Your task to perform on an android device: turn off improve location accuracy Image 0: 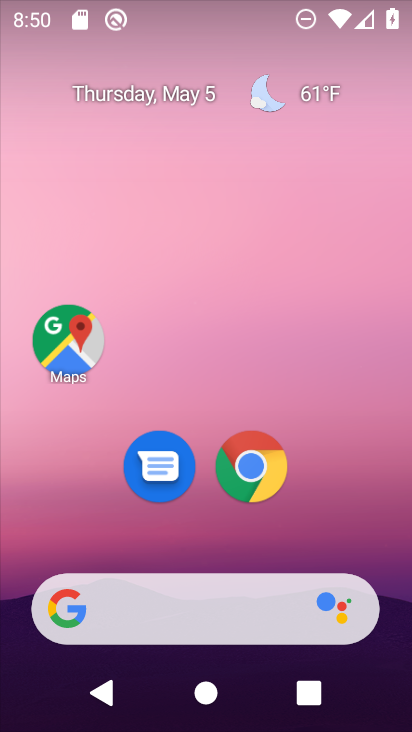
Step 0: drag from (156, 588) to (134, 299)
Your task to perform on an android device: turn off improve location accuracy Image 1: 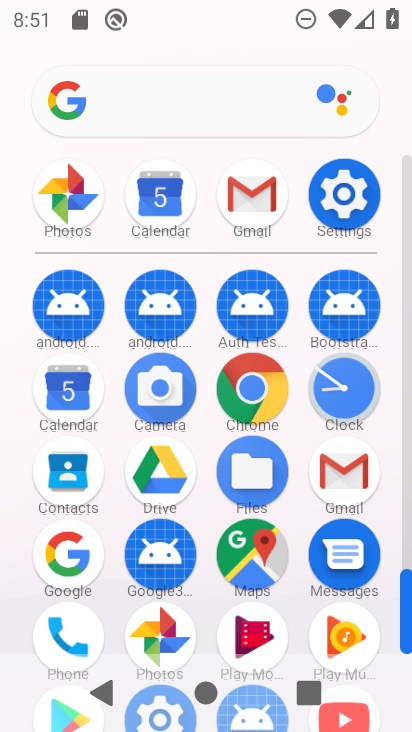
Step 1: click (335, 192)
Your task to perform on an android device: turn off improve location accuracy Image 2: 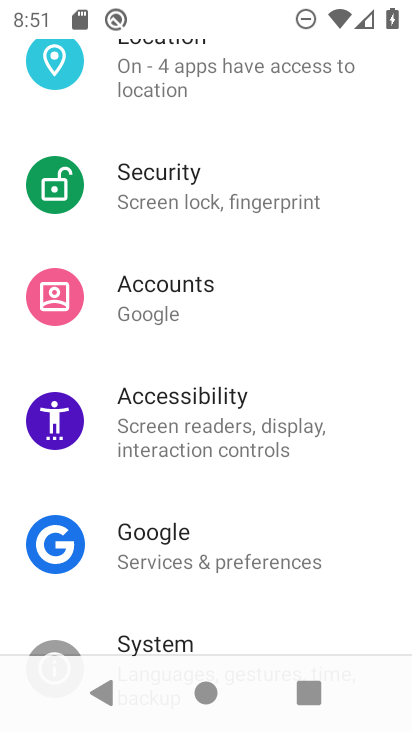
Step 2: click (152, 88)
Your task to perform on an android device: turn off improve location accuracy Image 3: 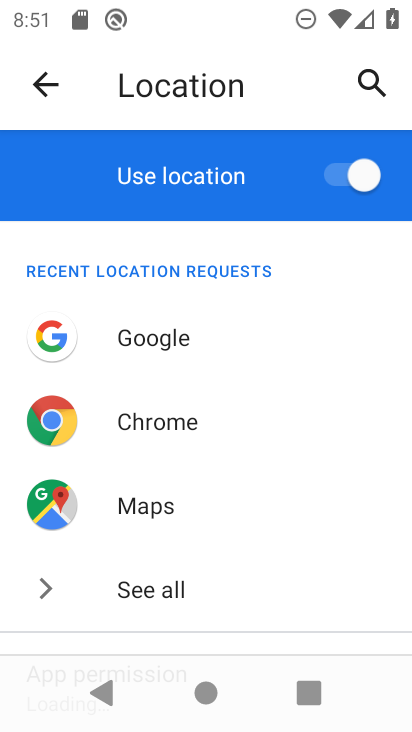
Step 3: drag from (164, 593) to (130, 6)
Your task to perform on an android device: turn off improve location accuracy Image 4: 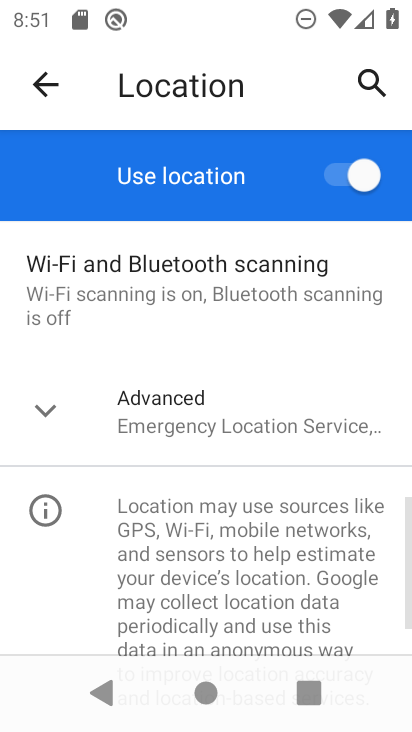
Step 4: click (149, 425)
Your task to perform on an android device: turn off improve location accuracy Image 5: 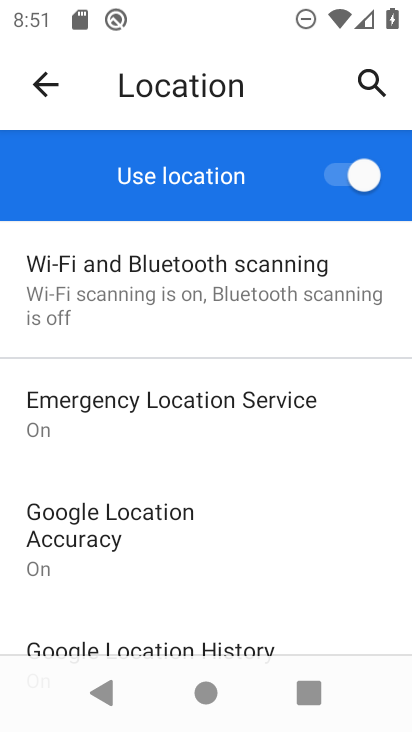
Step 5: click (111, 544)
Your task to perform on an android device: turn off improve location accuracy Image 6: 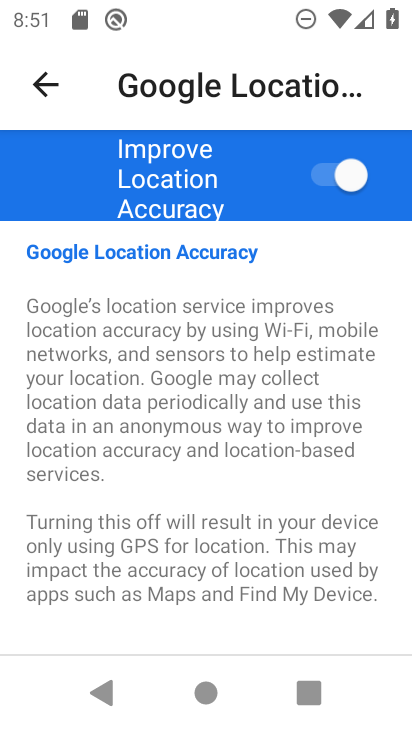
Step 6: click (338, 184)
Your task to perform on an android device: turn off improve location accuracy Image 7: 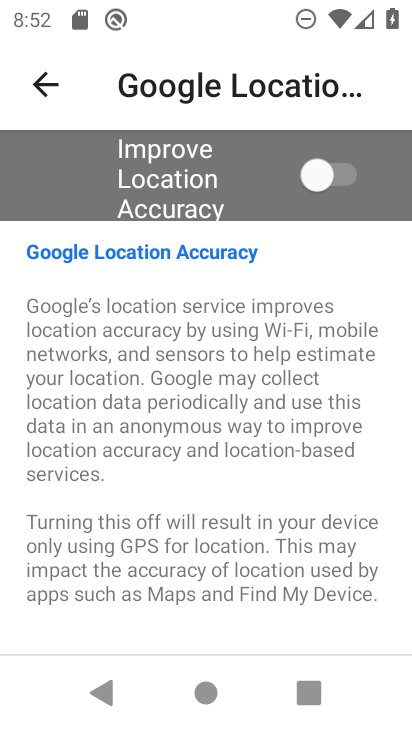
Step 7: task complete